Your task to perform on an android device: Open Amazon Image 0: 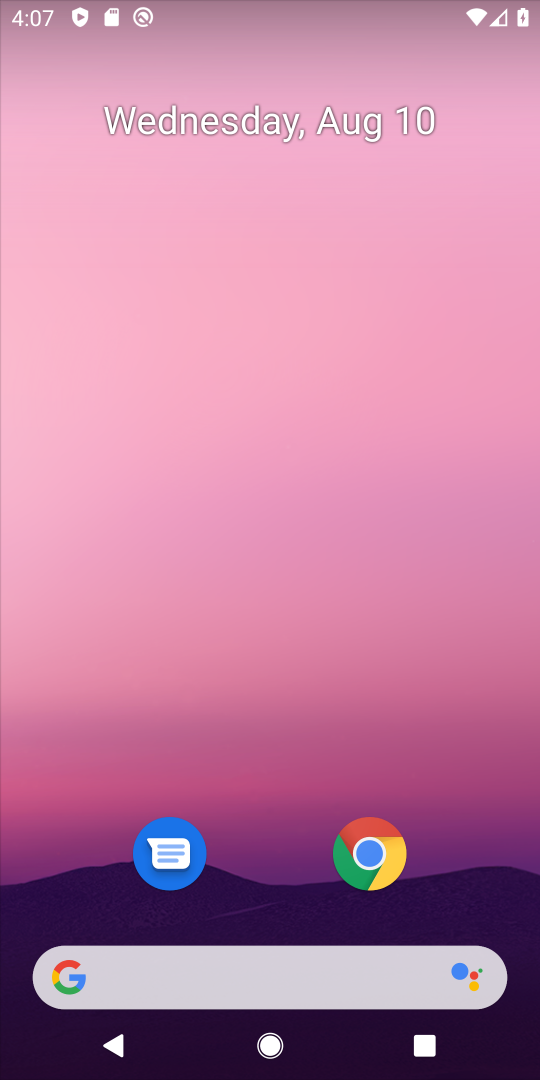
Step 0: click (362, 850)
Your task to perform on an android device: Open Amazon Image 1: 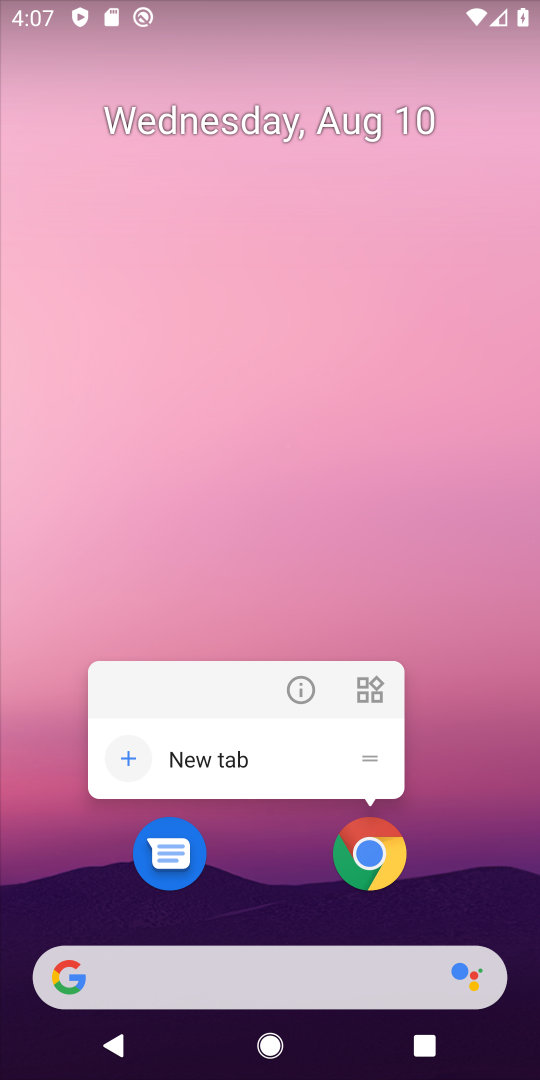
Step 1: click (373, 845)
Your task to perform on an android device: Open Amazon Image 2: 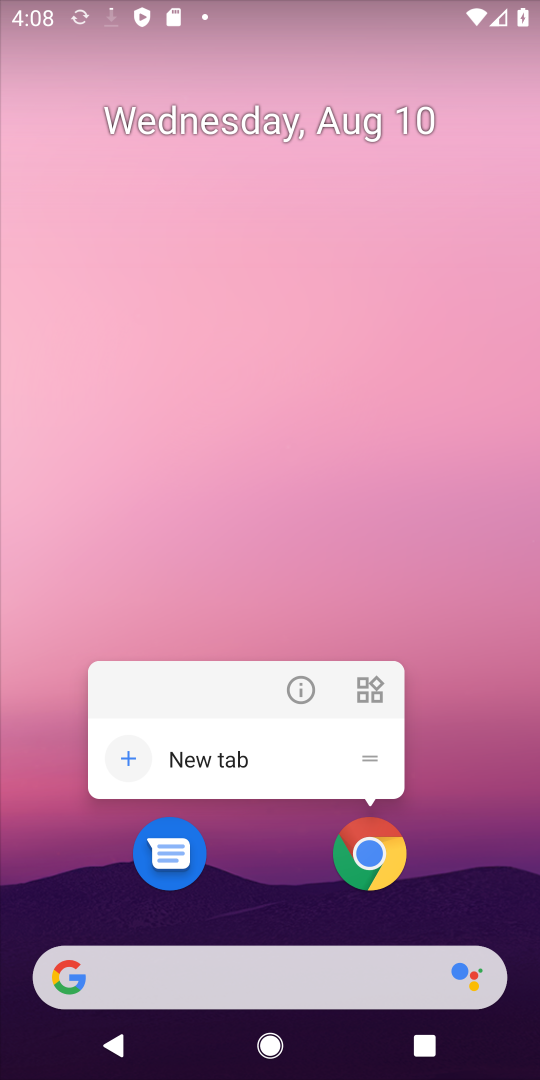
Step 2: click (373, 845)
Your task to perform on an android device: Open Amazon Image 3: 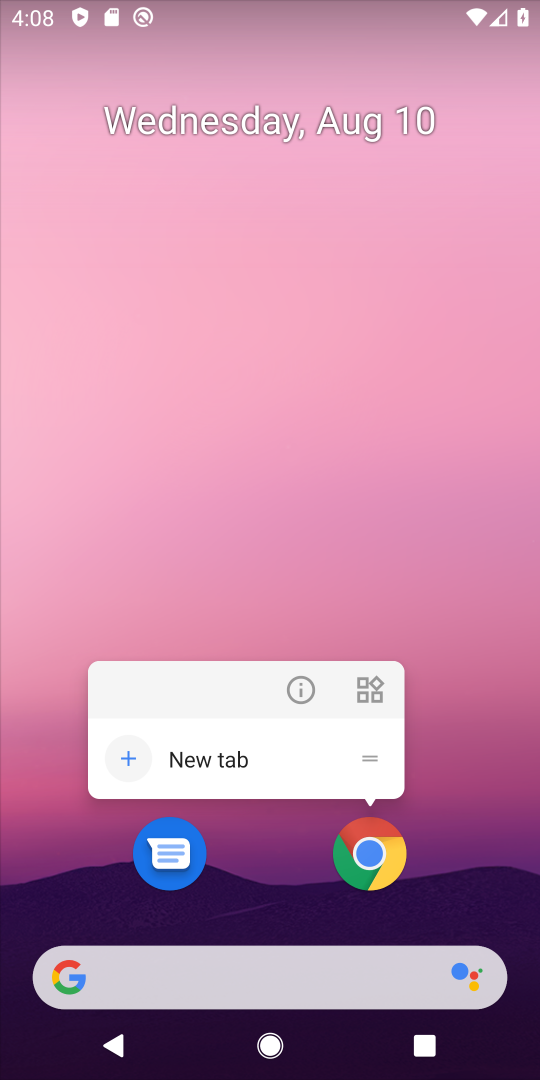
Step 3: click (373, 845)
Your task to perform on an android device: Open Amazon Image 4: 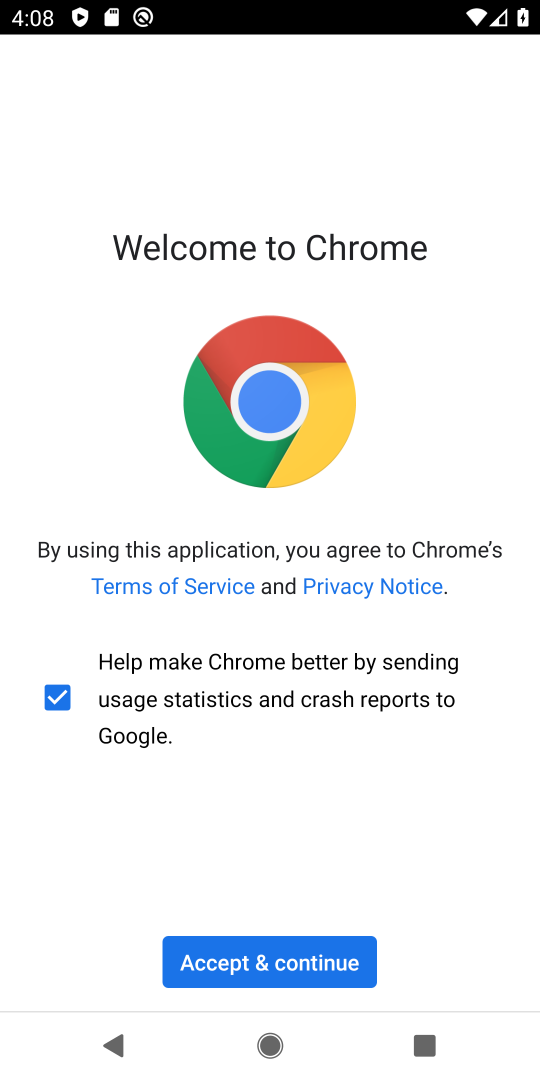
Step 4: click (280, 948)
Your task to perform on an android device: Open Amazon Image 5: 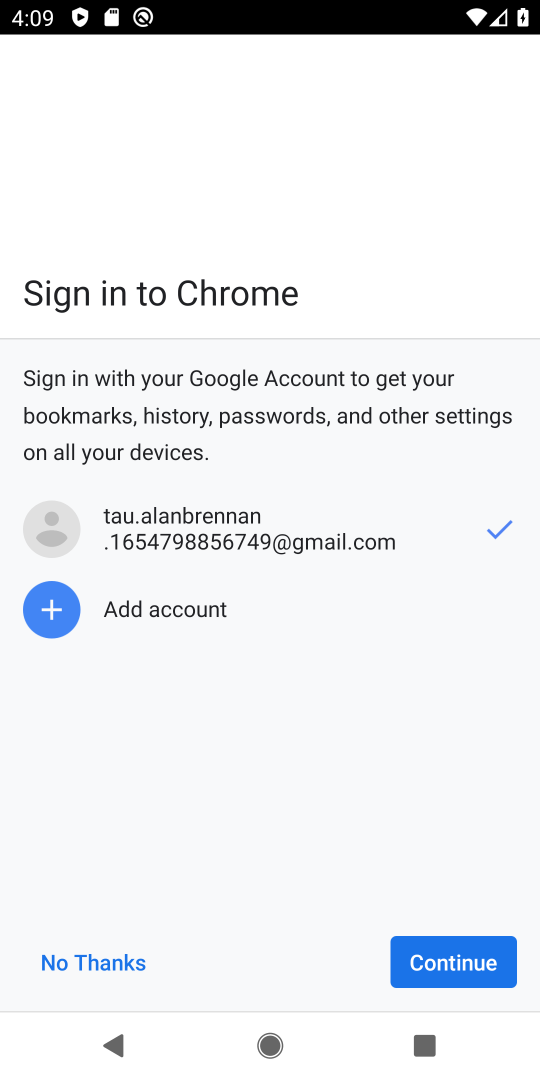
Step 5: click (76, 954)
Your task to perform on an android device: Open Amazon Image 6: 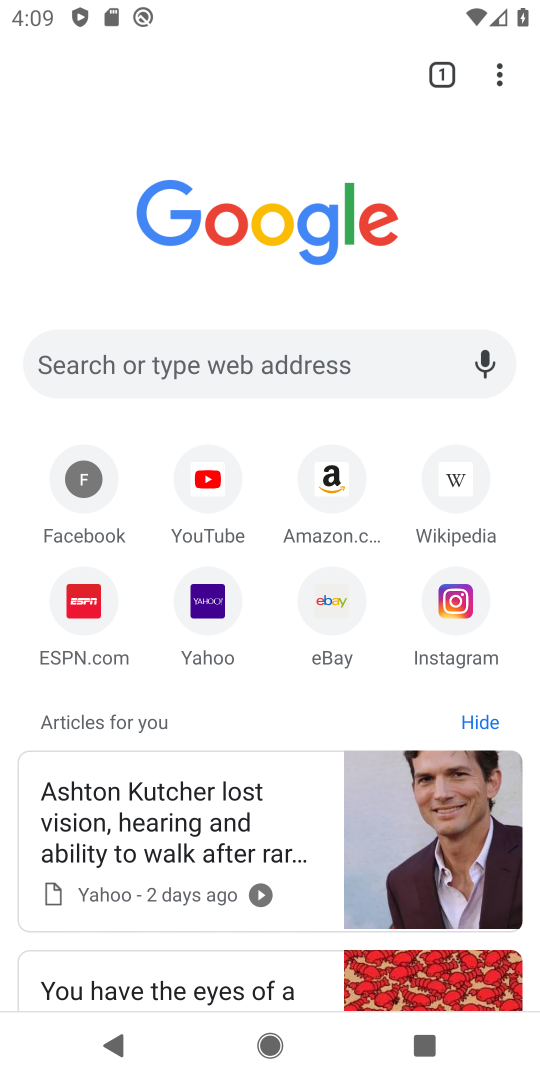
Step 6: click (317, 482)
Your task to perform on an android device: Open Amazon Image 7: 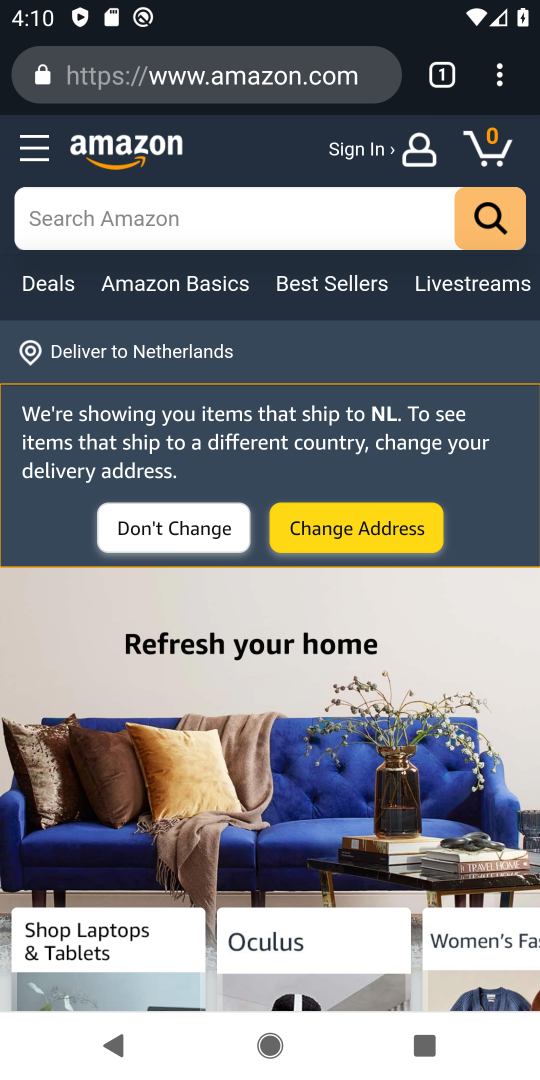
Step 7: task complete